Your task to perform on an android device: turn off airplane mode Image 0: 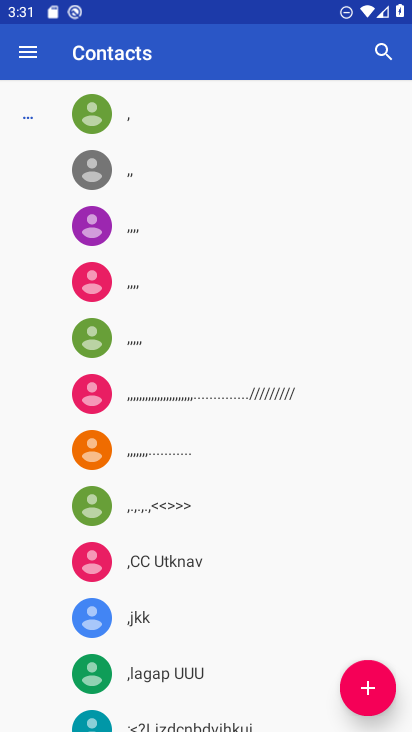
Step 0: drag from (230, 12) to (187, 534)
Your task to perform on an android device: turn off airplane mode Image 1: 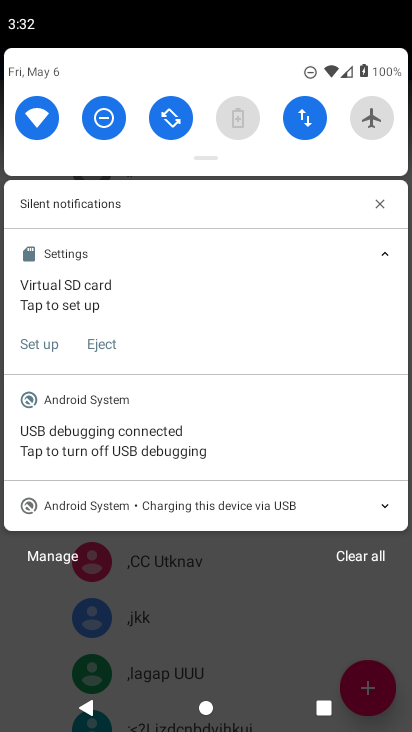
Step 1: drag from (322, 142) to (283, 530)
Your task to perform on an android device: turn off airplane mode Image 2: 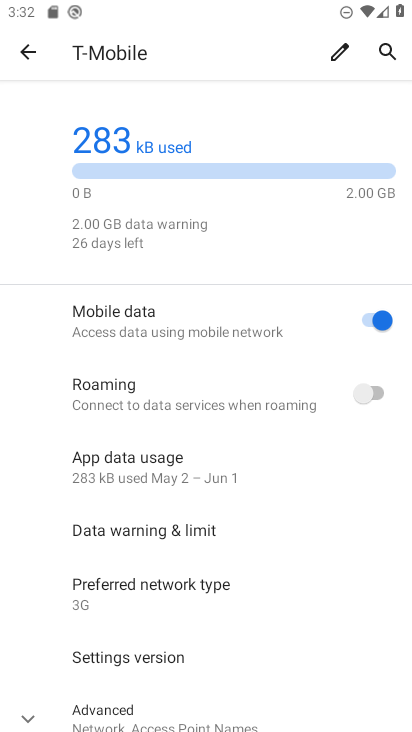
Step 2: click (22, 52)
Your task to perform on an android device: turn off airplane mode Image 3: 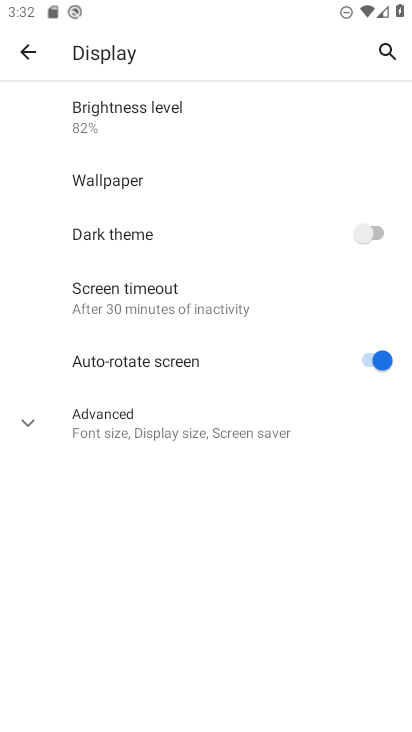
Step 3: task complete